Your task to perform on an android device: turn on translation in the chrome app Image 0: 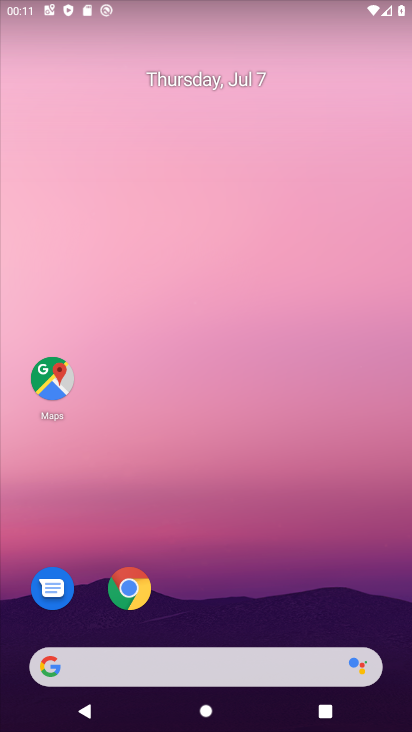
Step 0: click (129, 591)
Your task to perform on an android device: turn on translation in the chrome app Image 1: 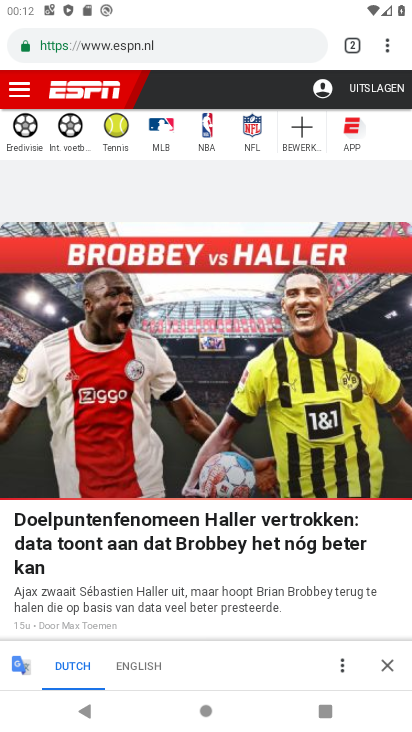
Step 1: click (388, 47)
Your task to perform on an android device: turn on translation in the chrome app Image 2: 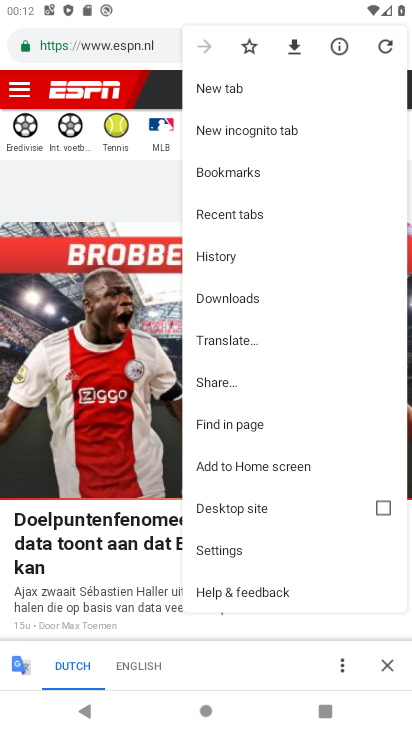
Step 2: click (223, 548)
Your task to perform on an android device: turn on translation in the chrome app Image 3: 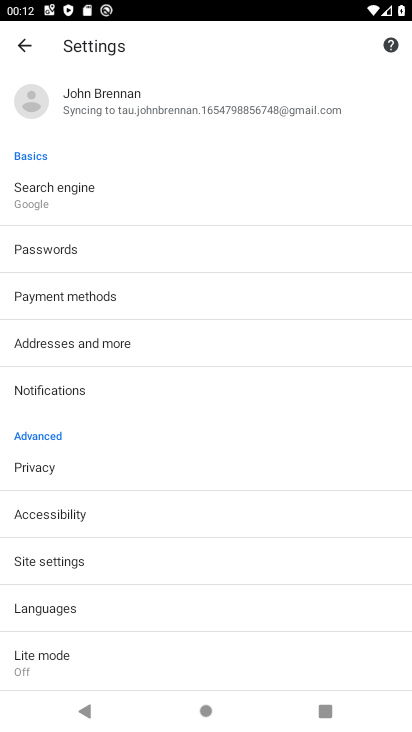
Step 3: click (42, 610)
Your task to perform on an android device: turn on translation in the chrome app Image 4: 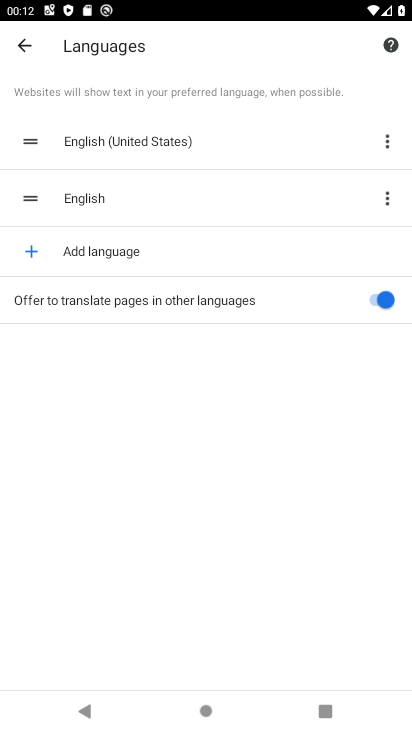
Step 4: task complete